Your task to perform on an android device: Install the News app Image 0: 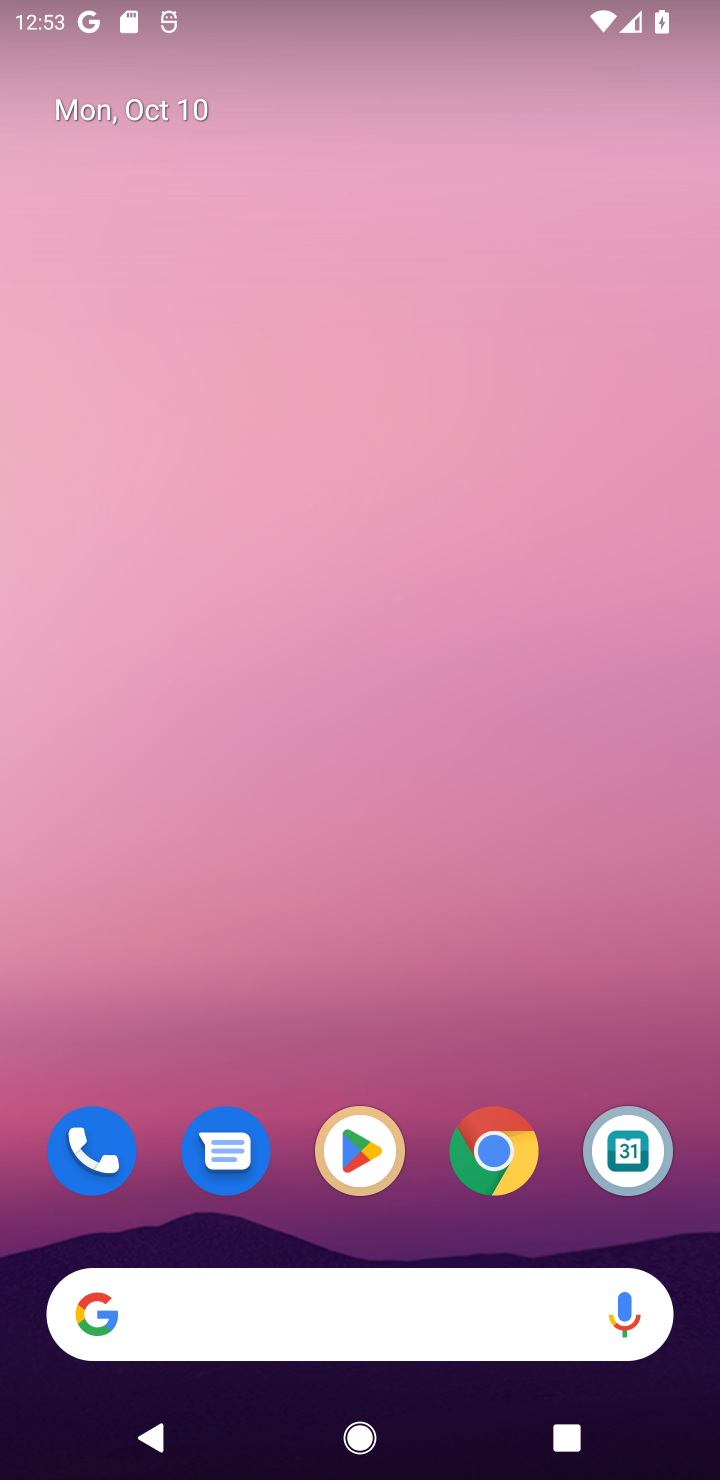
Step 0: click (356, 1150)
Your task to perform on an android device: Install the News app Image 1: 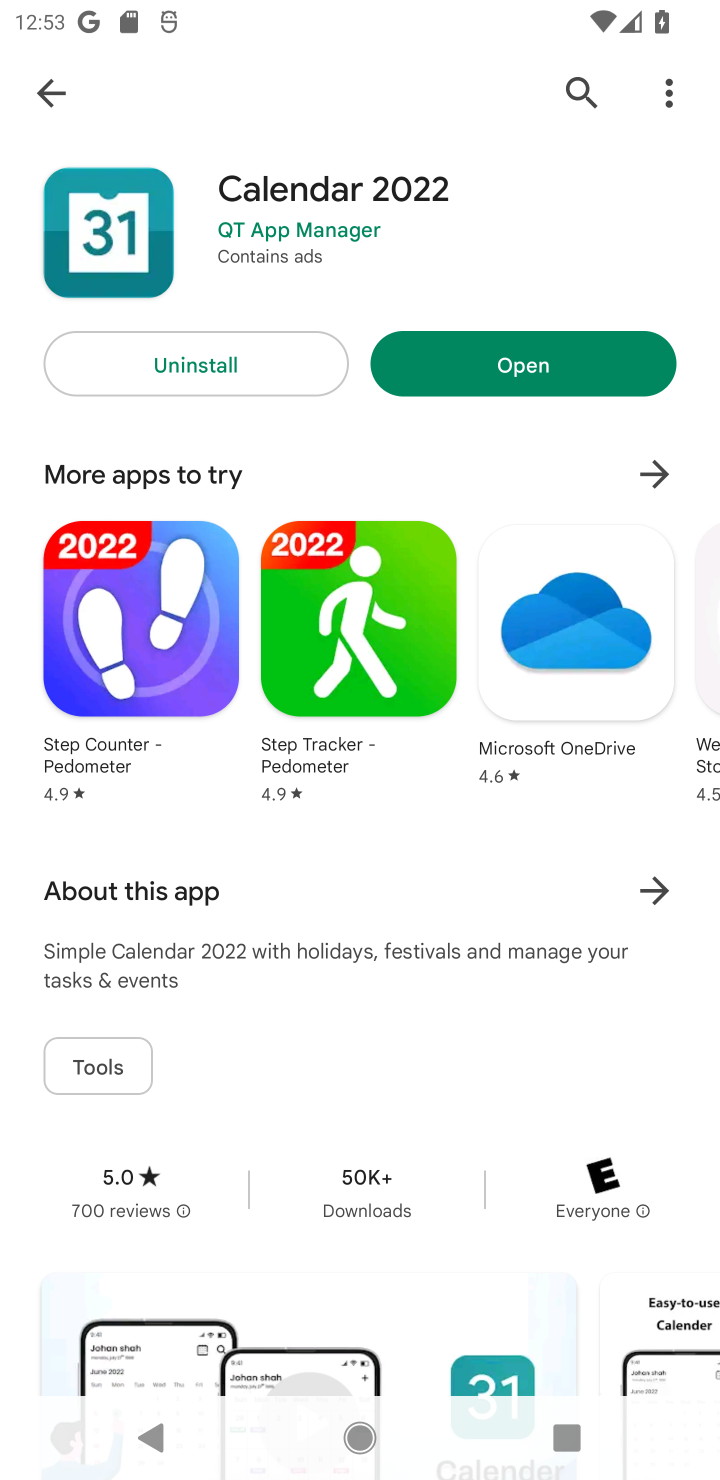
Step 1: click (37, 92)
Your task to perform on an android device: Install the News app Image 2: 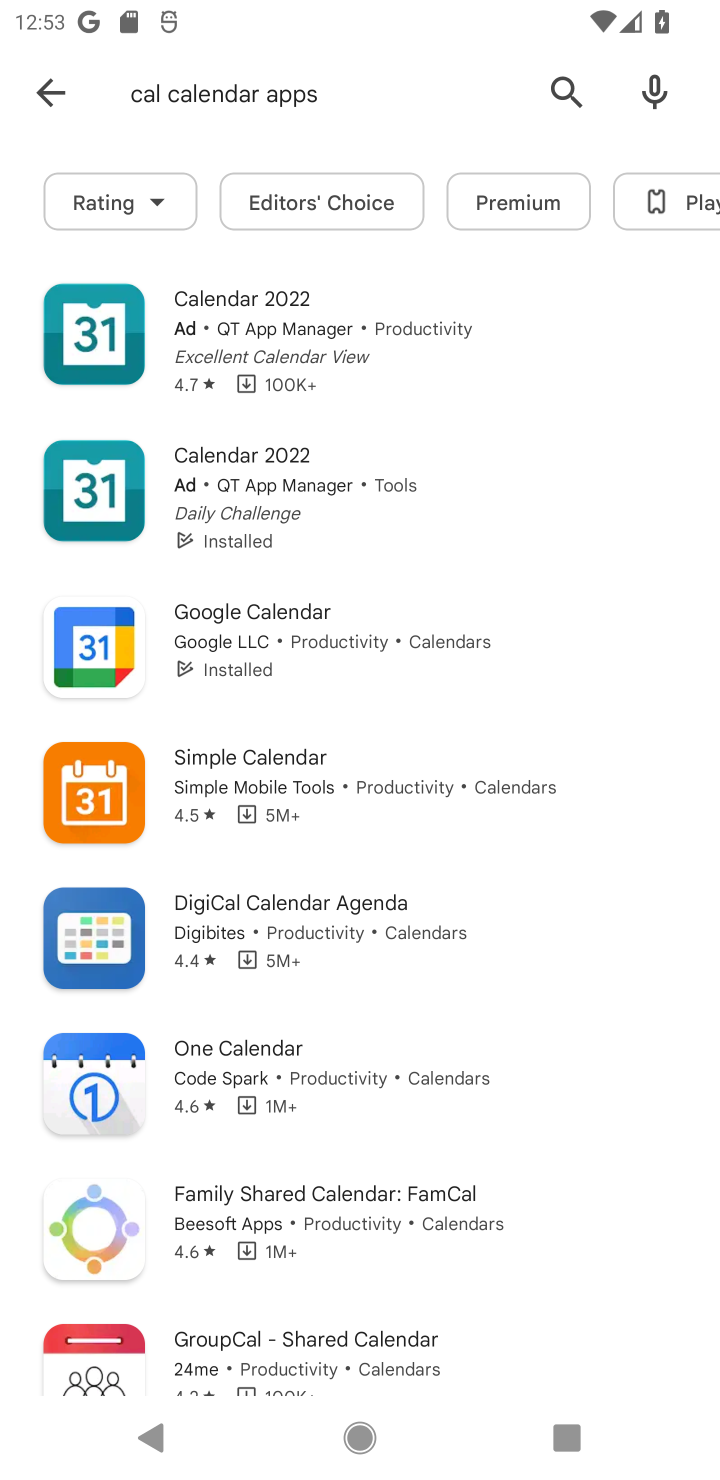
Step 2: click (43, 91)
Your task to perform on an android device: Install the News app Image 3: 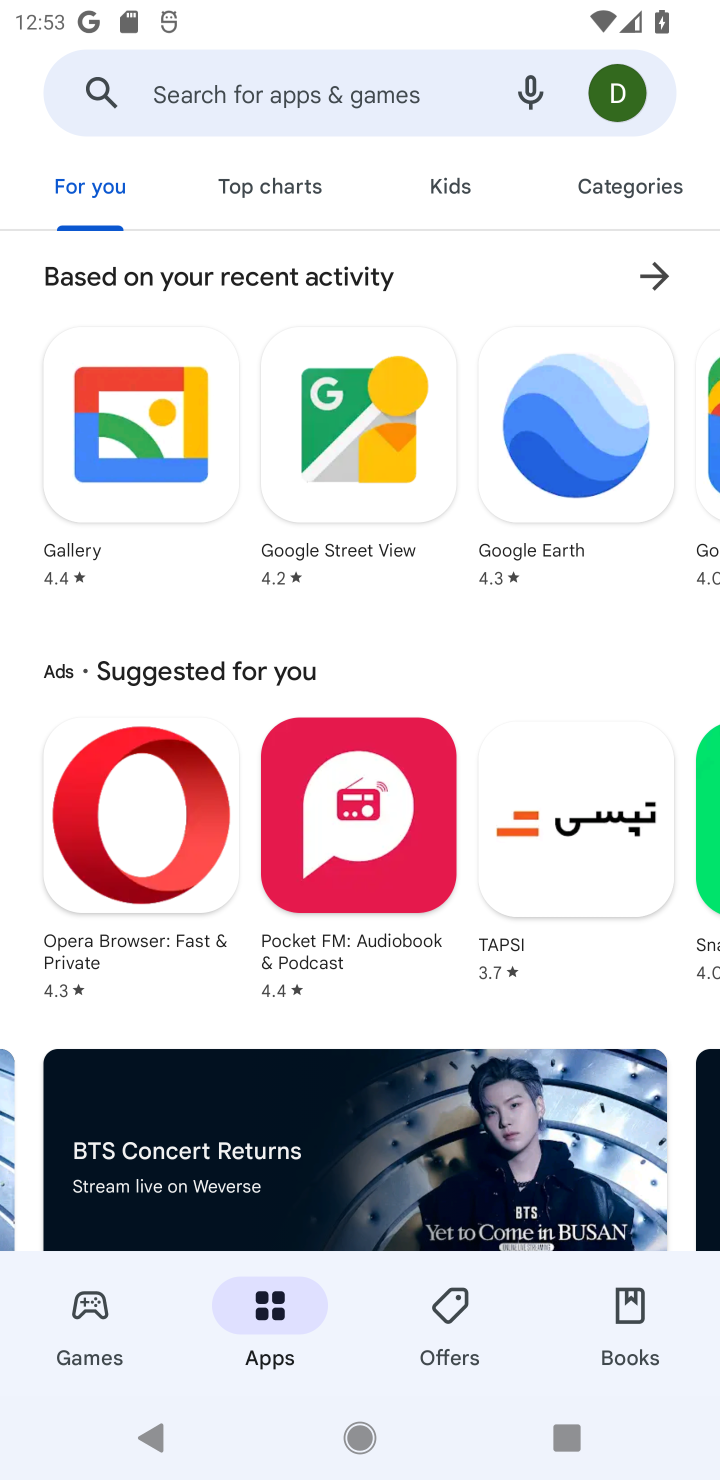
Step 3: click (401, 101)
Your task to perform on an android device: Install the News app Image 4: 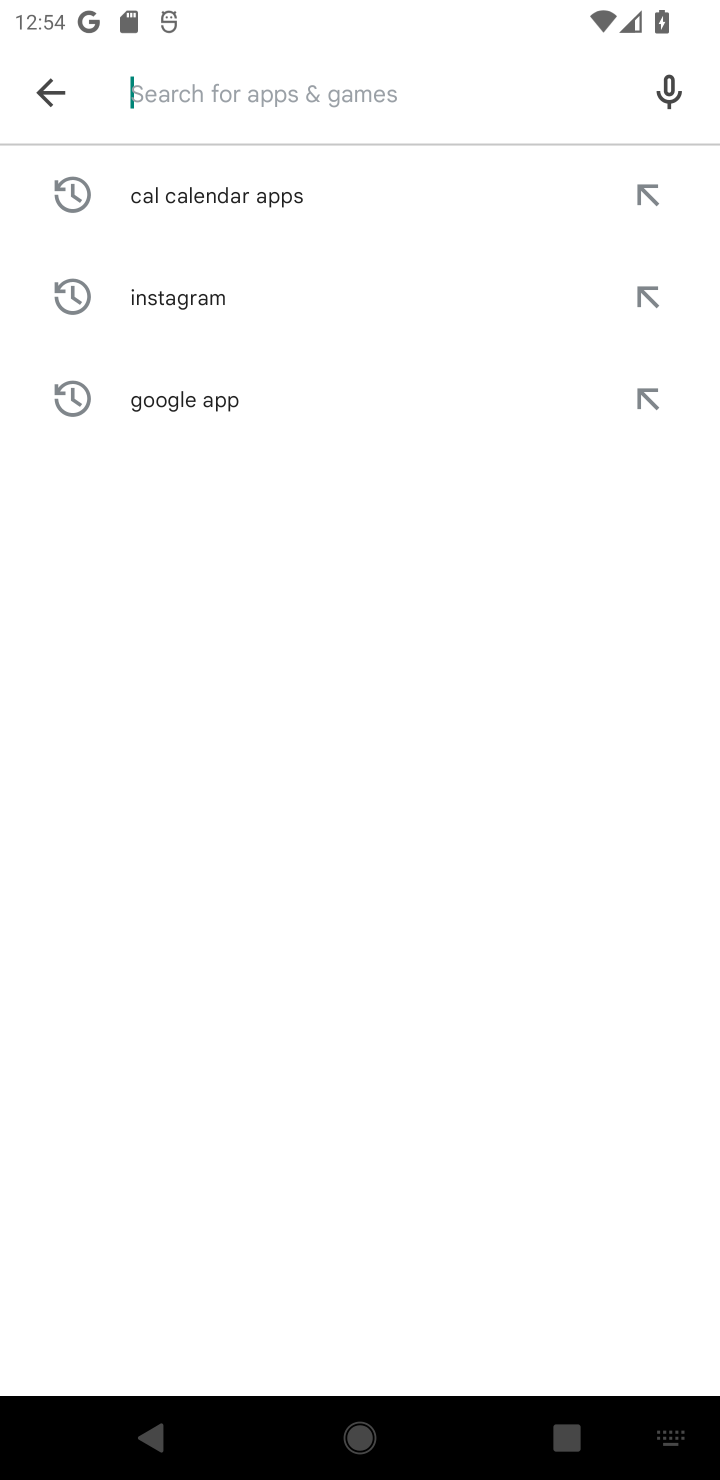
Step 4: type "news app"
Your task to perform on an android device: Install the News app Image 5: 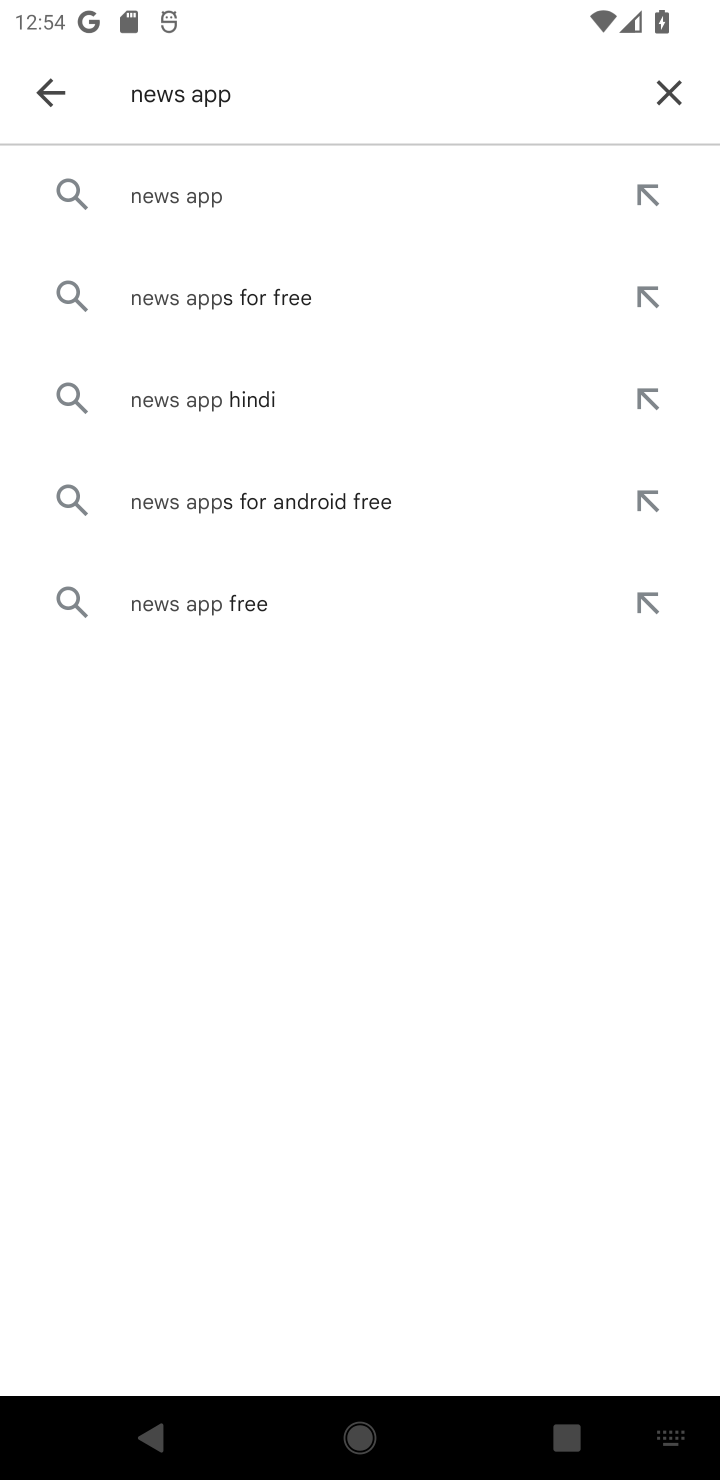
Step 5: click (184, 194)
Your task to perform on an android device: Install the News app Image 6: 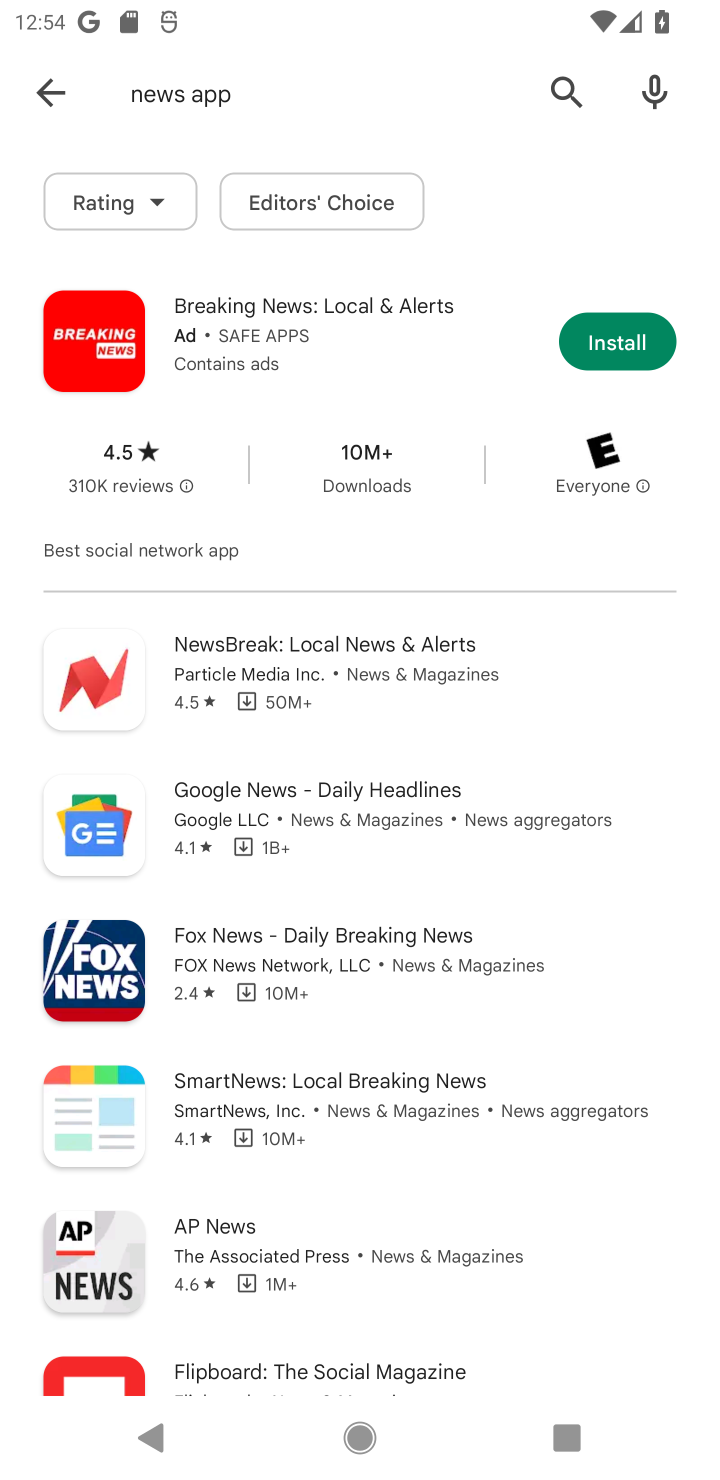
Step 6: click (609, 344)
Your task to perform on an android device: Install the News app Image 7: 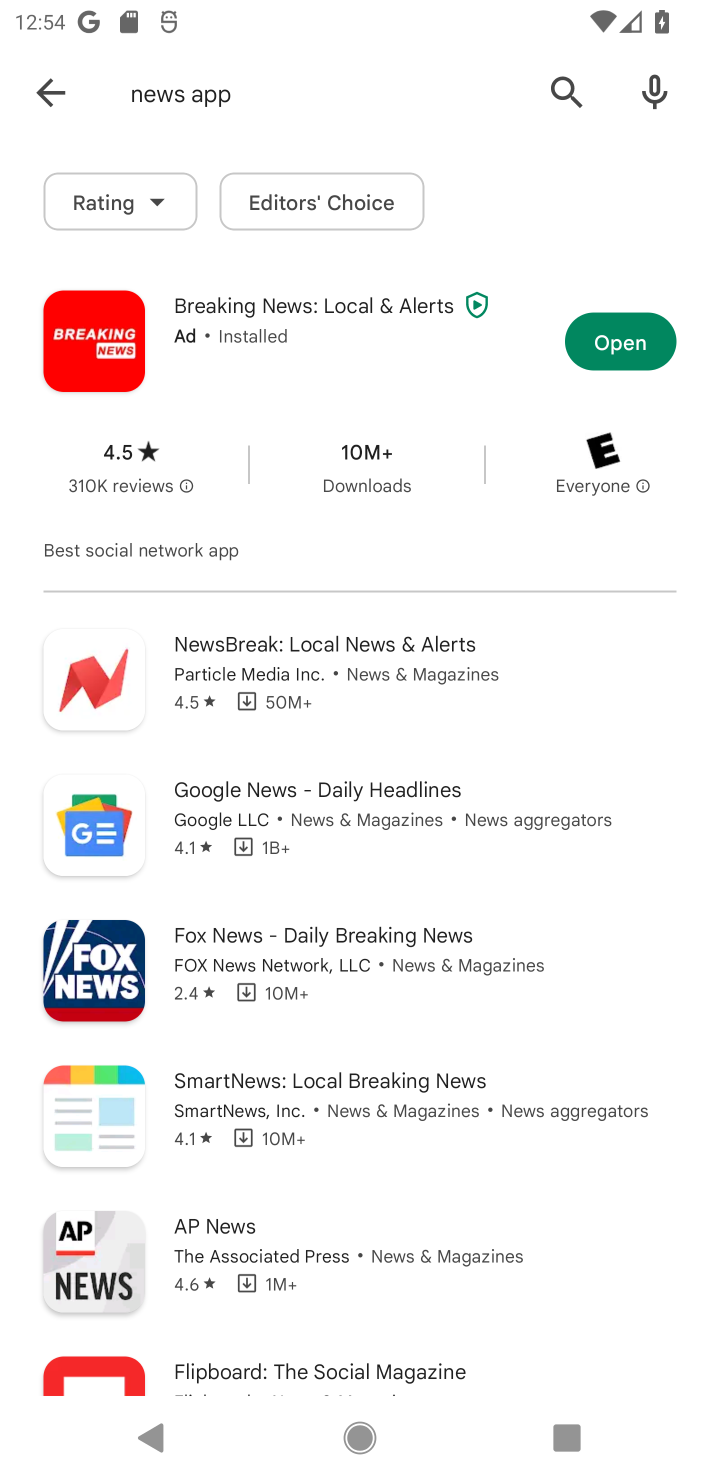
Step 7: task complete